Your task to perform on an android device: Open calendar and show me the first week of next month Image 0: 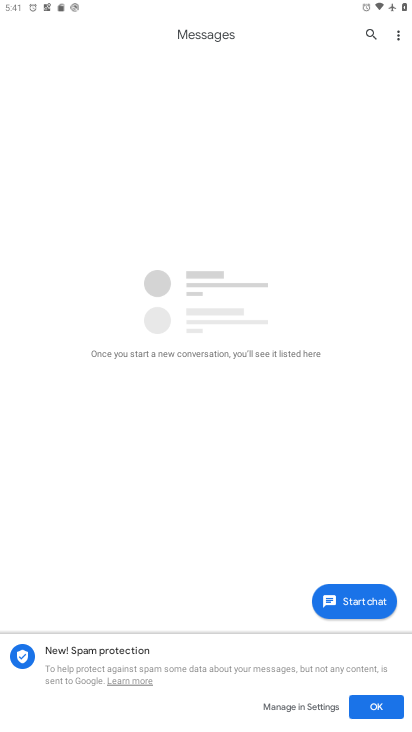
Step 0: press home button
Your task to perform on an android device: Open calendar and show me the first week of next month Image 1: 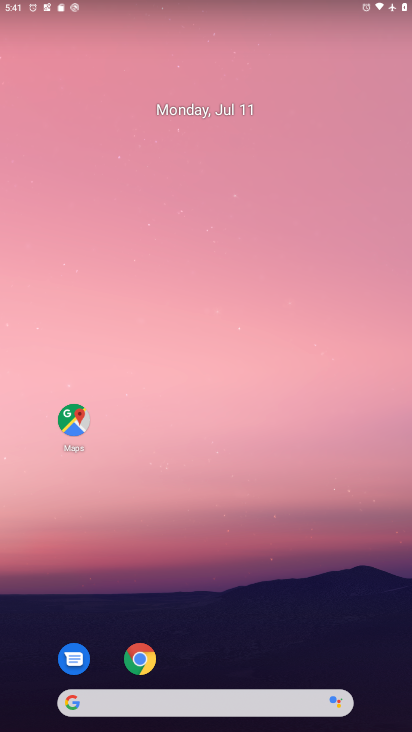
Step 1: drag from (355, 643) to (317, 56)
Your task to perform on an android device: Open calendar and show me the first week of next month Image 2: 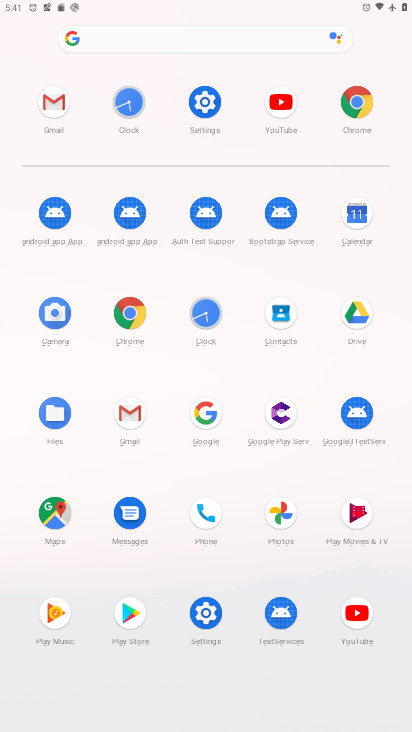
Step 2: click (357, 218)
Your task to perform on an android device: Open calendar and show me the first week of next month Image 3: 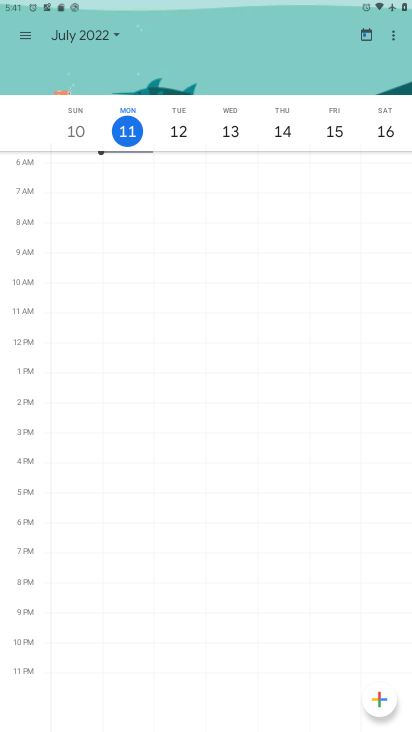
Step 3: click (25, 31)
Your task to perform on an android device: Open calendar and show me the first week of next month Image 4: 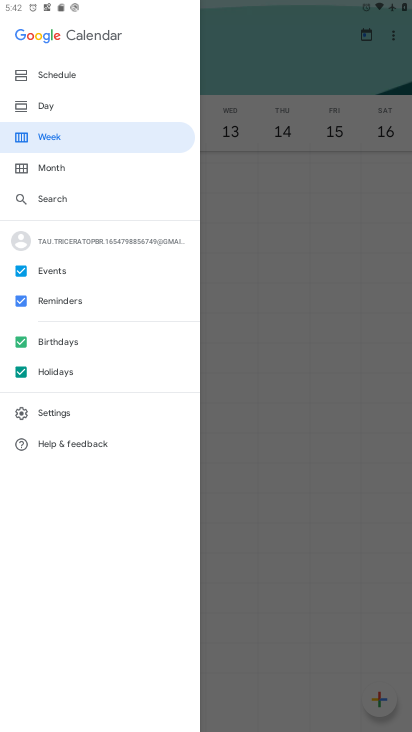
Step 4: click (239, 205)
Your task to perform on an android device: Open calendar and show me the first week of next month Image 5: 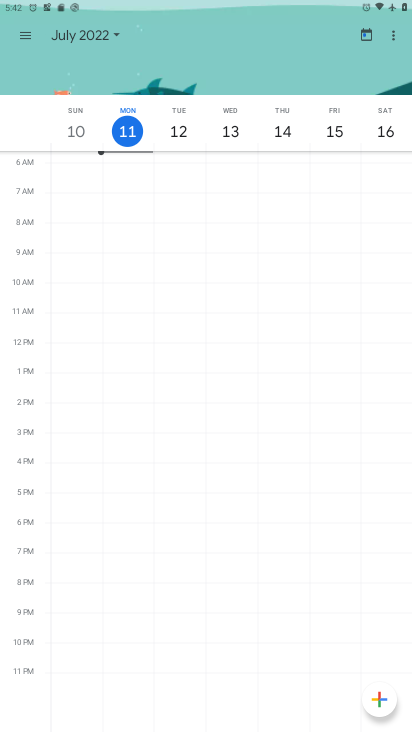
Step 5: click (109, 37)
Your task to perform on an android device: Open calendar and show me the first week of next month Image 6: 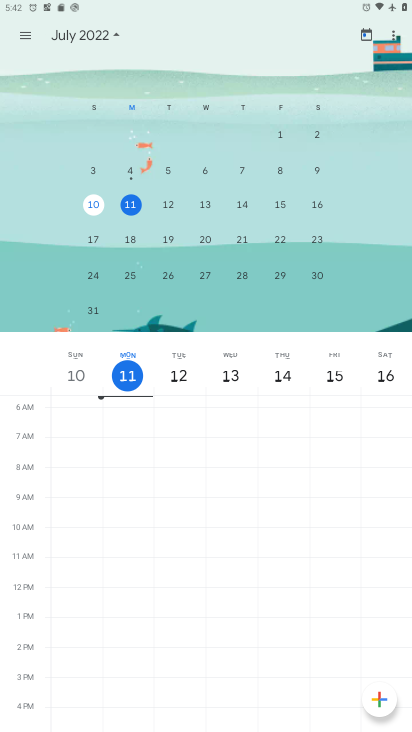
Step 6: drag from (327, 235) to (31, 233)
Your task to perform on an android device: Open calendar and show me the first week of next month Image 7: 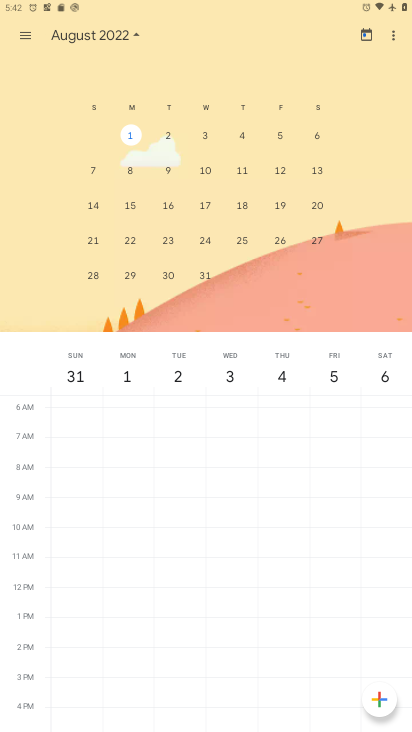
Step 7: click (130, 135)
Your task to perform on an android device: Open calendar and show me the first week of next month Image 8: 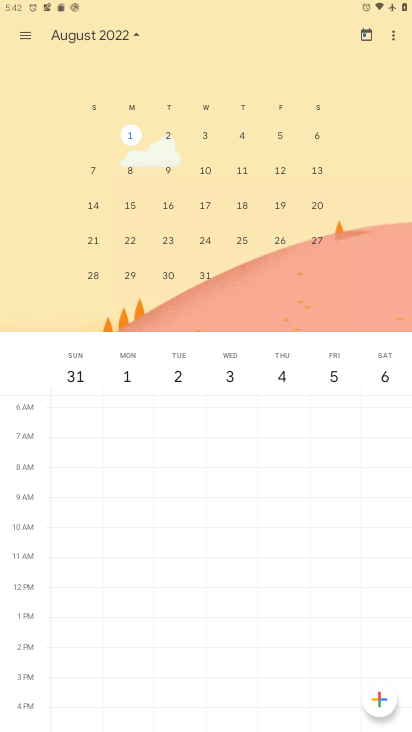
Step 8: task complete